Your task to perform on an android device: choose inbox layout in the gmail app Image 0: 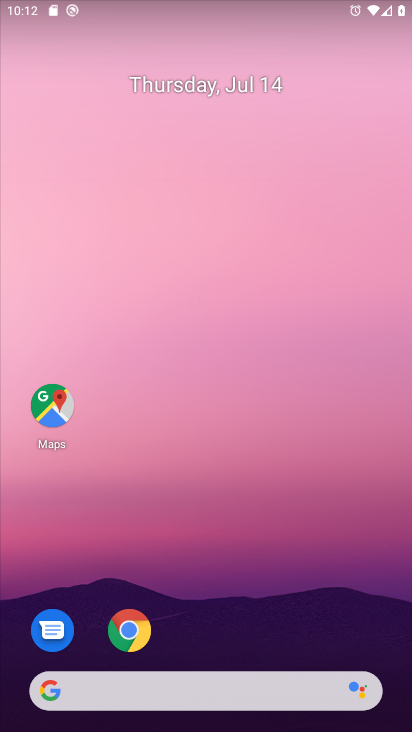
Step 0: click (368, 480)
Your task to perform on an android device: choose inbox layout in the gmail app Image 1: 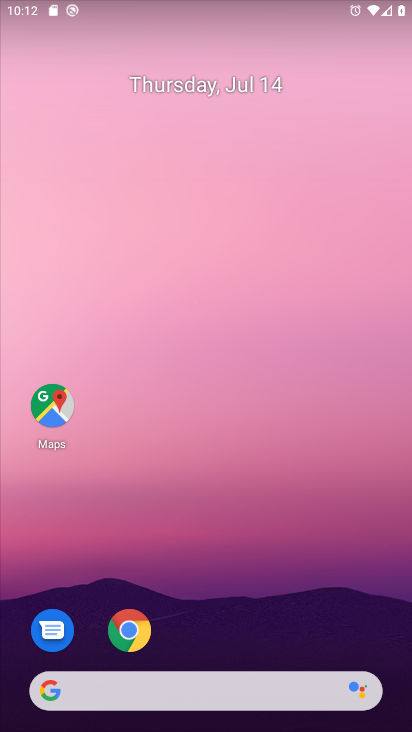
Step 1: drag from (220, 563) to (305, 115)
Your task to perform on an android device: choose inbox layout in the gmail app Image 2: 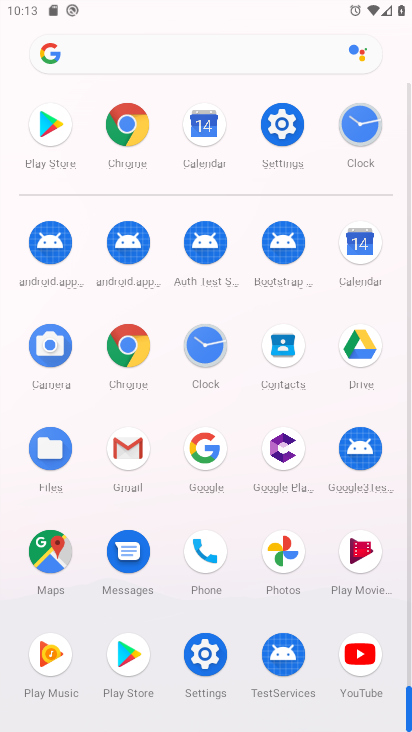
Step 2: click (111, 452)
Your task to perform on an android device: choose inbox layout in the gmail app Image 3: 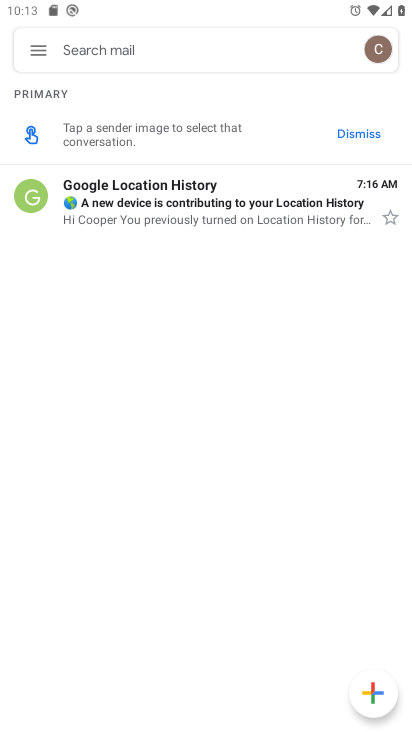
Step 3: drag from (217, 493) to (299, 128)
Your task to perform on an android device: choose inbox layout in the gmail app Image 4: 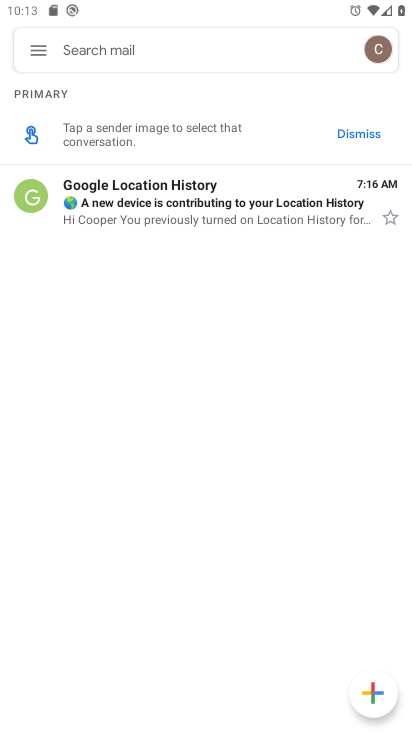
Step 4: click (46, 46)
Your task to perform on an android device: choose inbox layout in the gmail app Image 5: 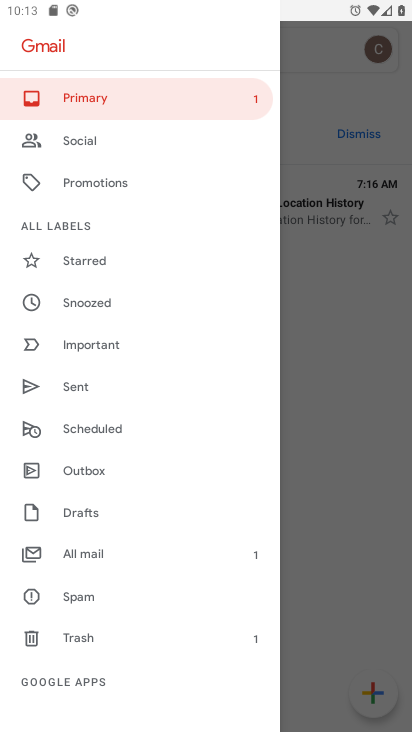
Step 5: click (79, 99)
Your task to perform on an android device: choose inbox layout in the gmail app Image 6: 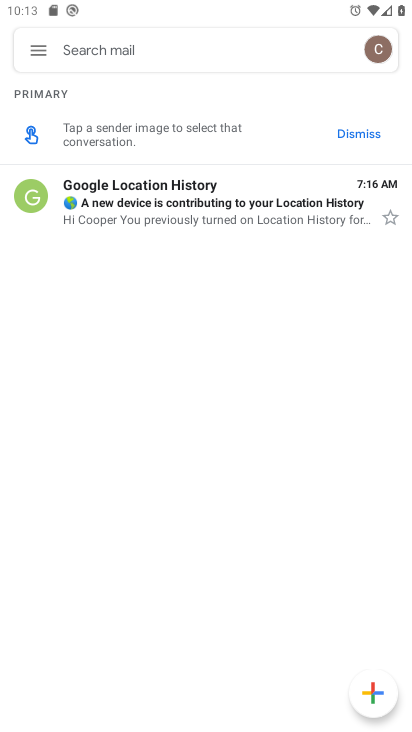
Step 6: task complete